Your task to perform on an android device: set the stopwatch Image 0: 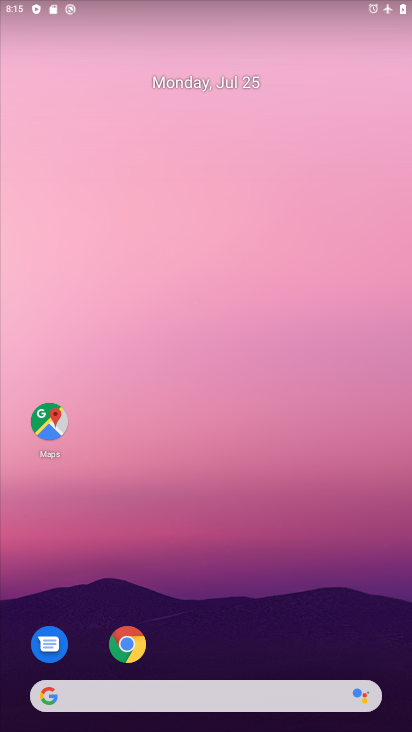
Step 0: drag from (217, 602) to (229, 121)
Your task to perform on an android device: set the stopwatch Image 1: 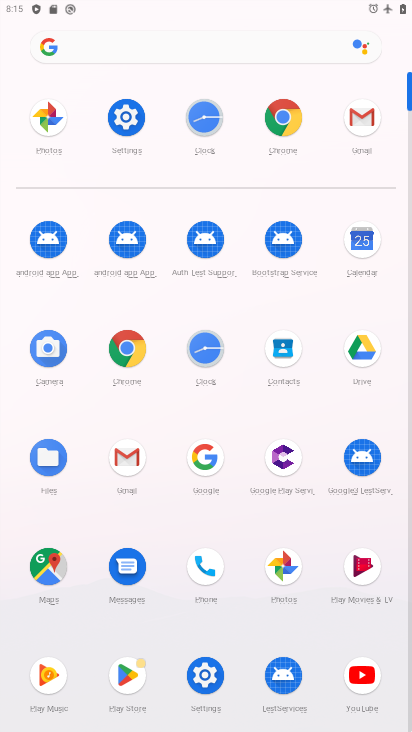
Step 1: click (199, 129)
Your task to perform on an android device: set the stopwatch Image 2: 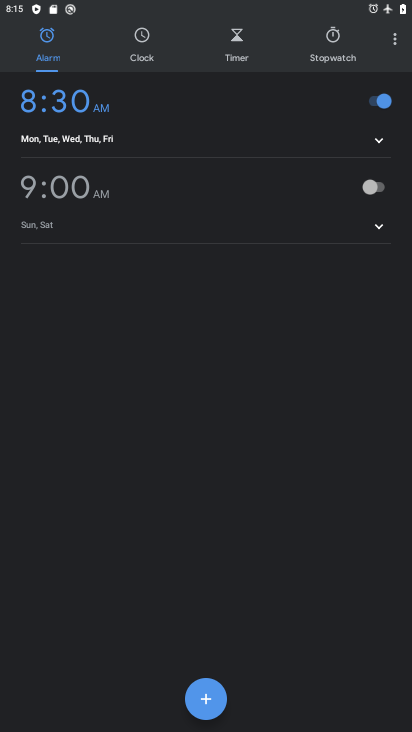
Step 2: click (338, 53)
Your task to perform on an android device: set the stopwatch Image 3: 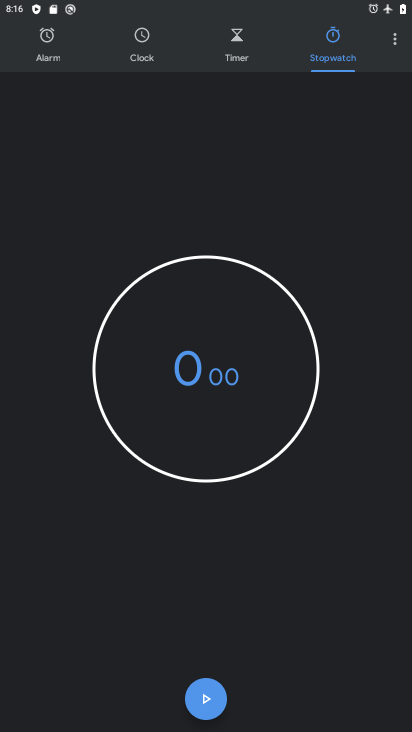
Step 3: click (203, 693)
Your task to perform on an android device: set the stopwatch Image 4: 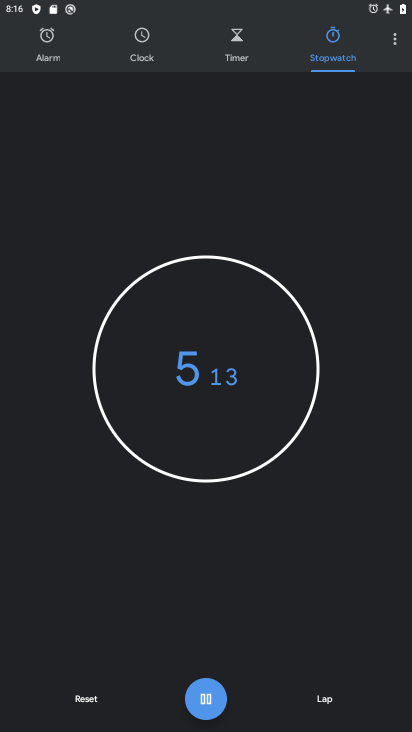
Step 4: click (203, 693)
Your task to perform on an android device: set the stopwatch Image 5: 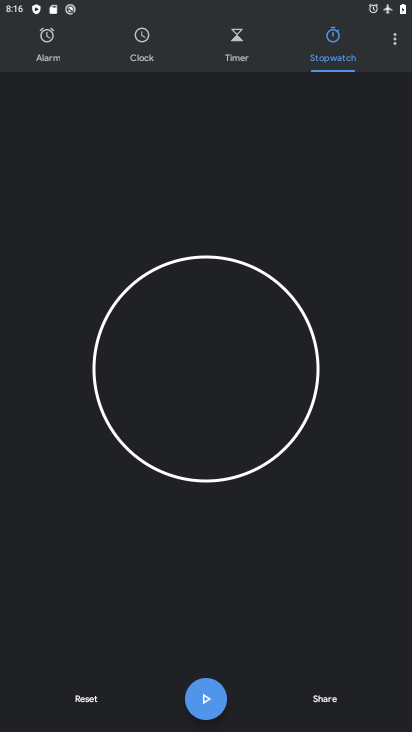
Step 5: task complete